Your task to perform on an android device: move an email to a new category in the gmail app Image 0: 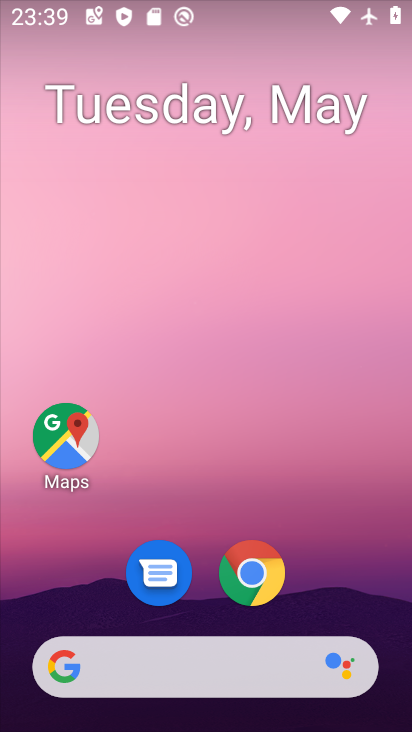
Step 0: drag from (335, 215) to (335, 78)
Your task to perform on an android device: move an email to a new category in the gmail app Image 1: 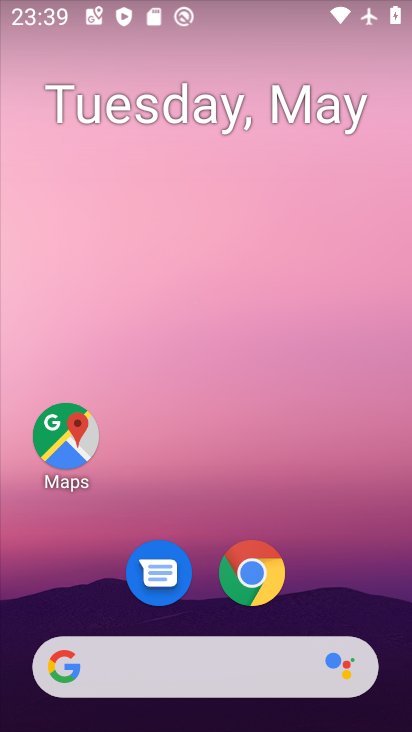
Step 1: drag from (335, 545) to (340, 267)
Your task to perform on an android device: move an email to a new category in the gmail app Image 2: 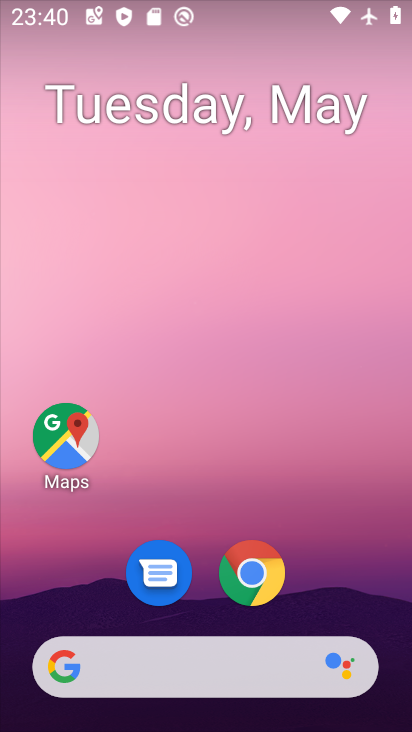
Step 2: drag from (325, 585) to (344, 174)
Your task to perform on an android device: move an email to a new category in the gmail app Image 3: 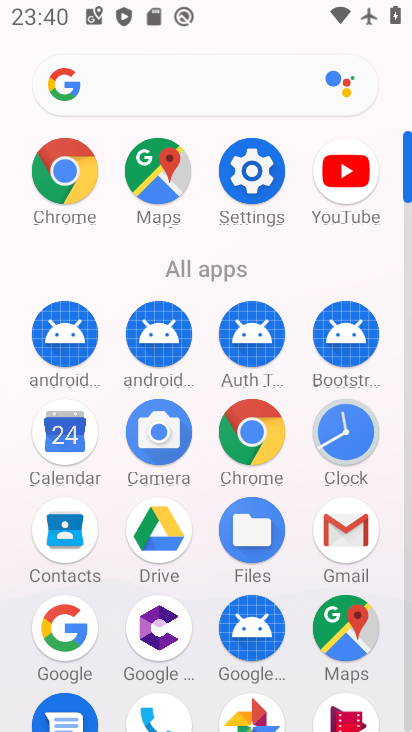
Step 3: click (350, 526)
Your task to perform on an android device: move an email to a new category in the gmail app Image 4: 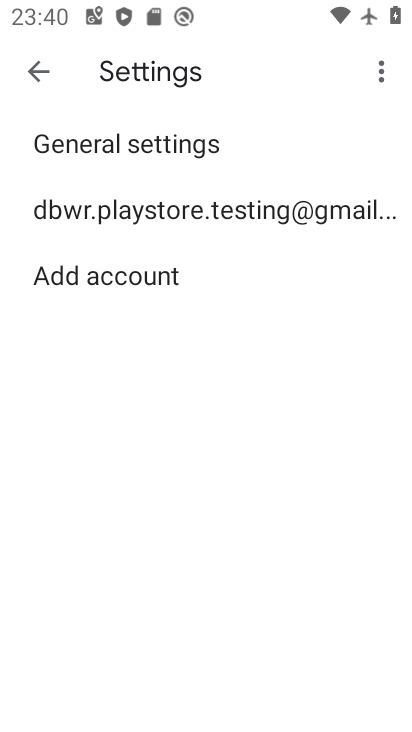
Step 4: click (161, 210)
Your task to perform on an android device: move an email to a new category in the gmail app Image 5: 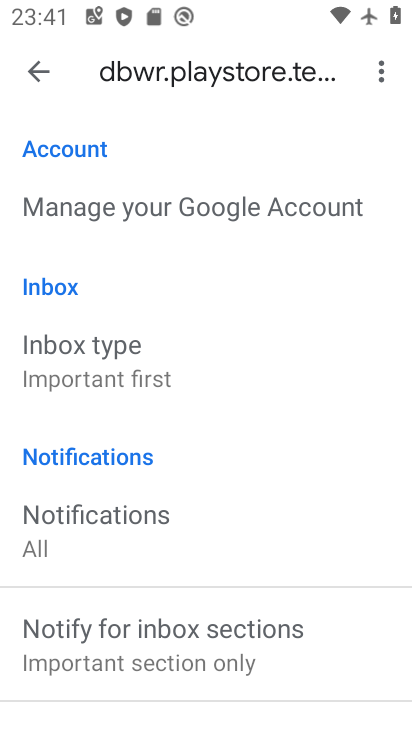
Step 5: click (28, 53)
Your task to perform on an android device: move an email to a new category in the gmail app Image 6: 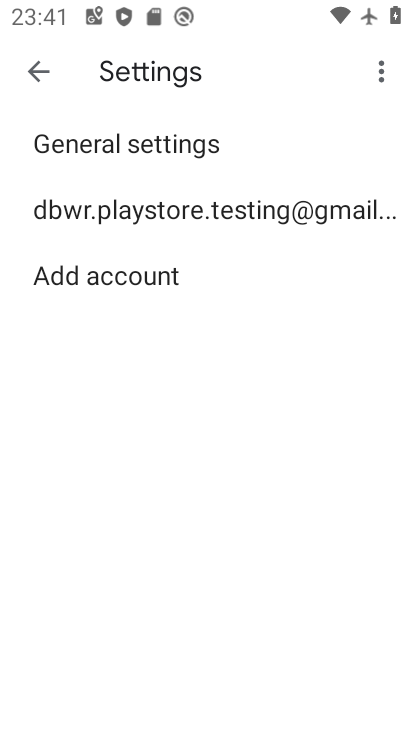
Step 6: click (40, 61)
Your task to perform on an android device: move an email to a new category in the gmail app Image 7: 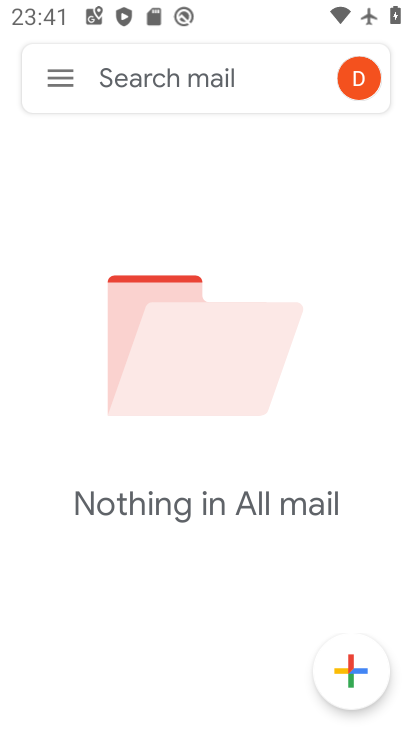
Step 7: click (66, 71)
Your task to perform on an android device: move an email to a new category in the gmail app Image 8: 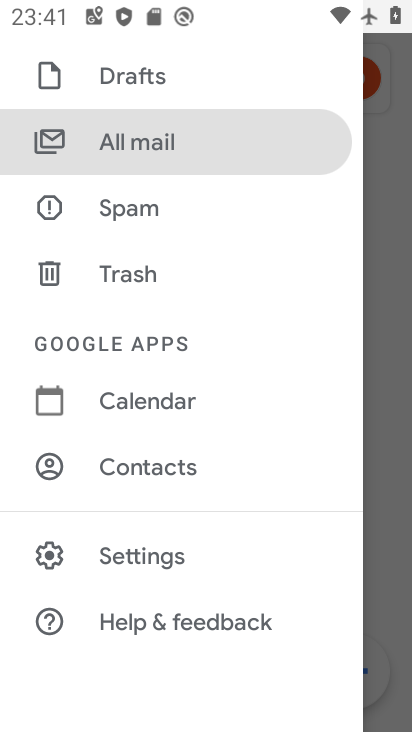
Step 8: click (170, 549)
Your task to perform on an android device: move an email to a new category in the gmail app Image 9: 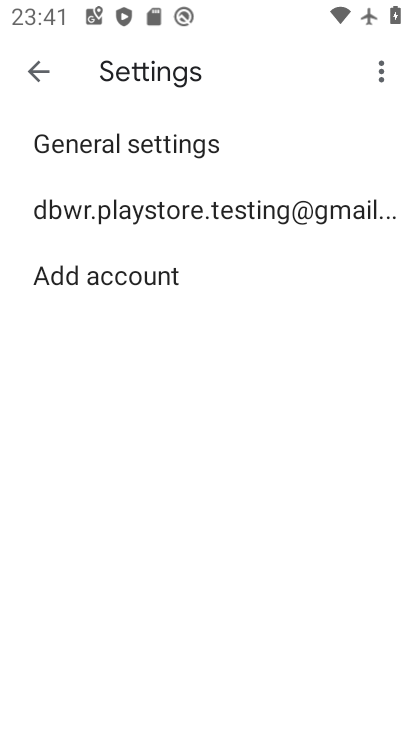
Step 9: click (159, 197)
Your task to perform on an android device: move an email to a new category in the gmail app Image 10: 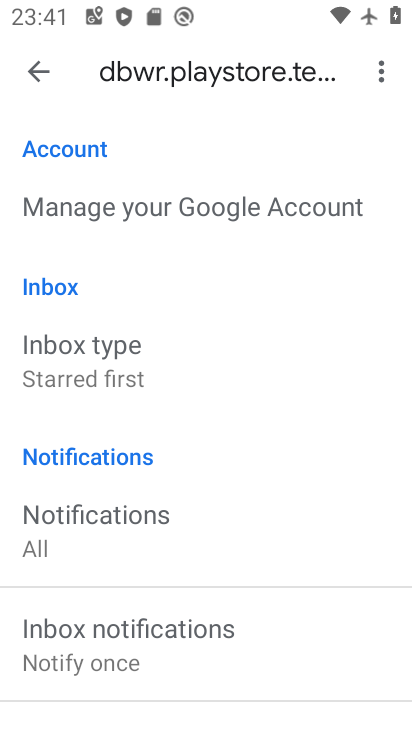
Step 10: click (30, 80)
Your task to perform on an android device: move an email to a new category in the gmail app Image 11: 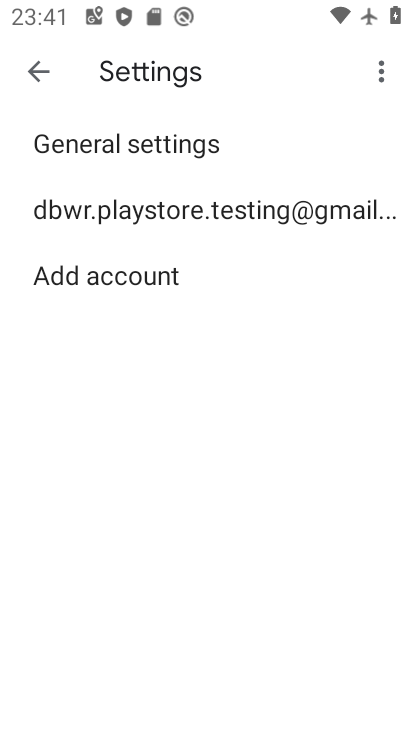
Step 11: click (39, 70)
Your task to perform on an android device: move an email to a new category in the gmail app Image 12: 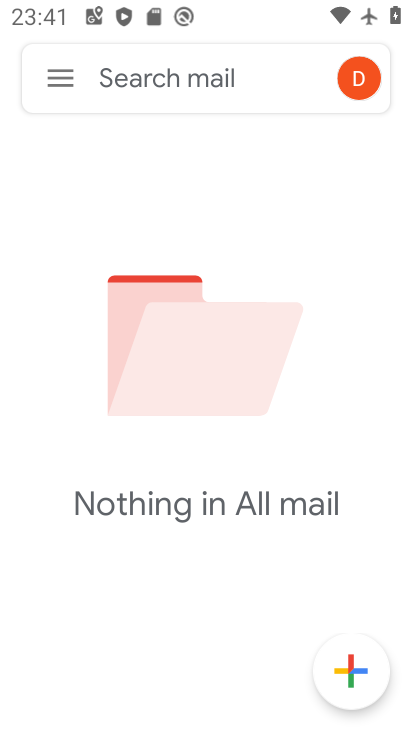
Step 12: click (46, 73)
Your task to perform on an android device: move an email to a new category in the gmail app Image 13: 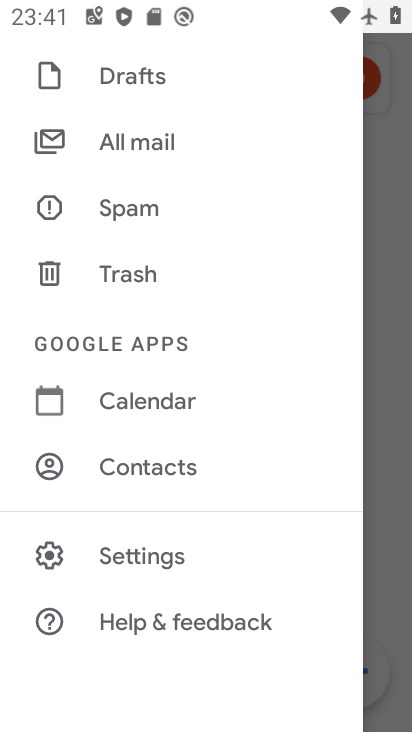
Step 13: drag from (188, 120) to (187, 502)
Your task to perform on an android device: move an email to a new category in the gmail app Image 14: 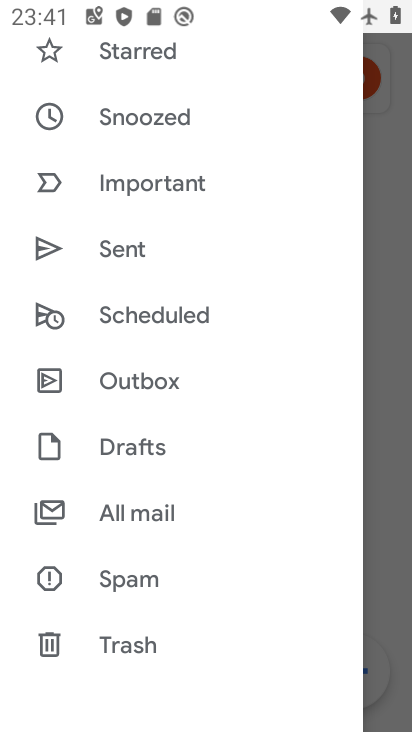
Step 14: drag from (187, 182) to (184, 533)
Your task to perform on an android device: move an email to a new category in the gmail app Image 15: 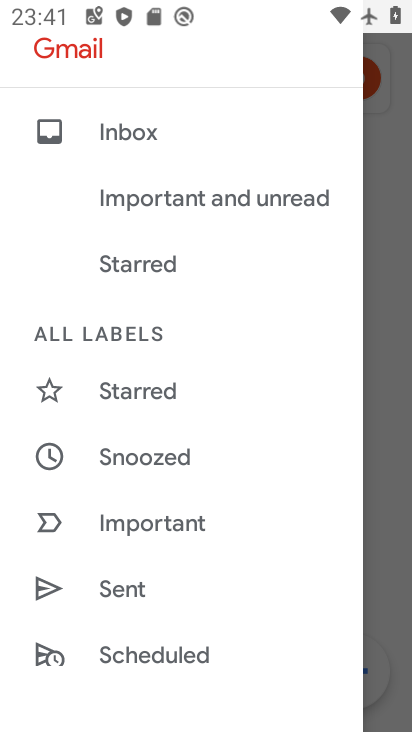
Step 15: drag from (201, 556) to (193, 277)
Your task to perform on an android device: move an email to a new category in the gmail app Image 16: 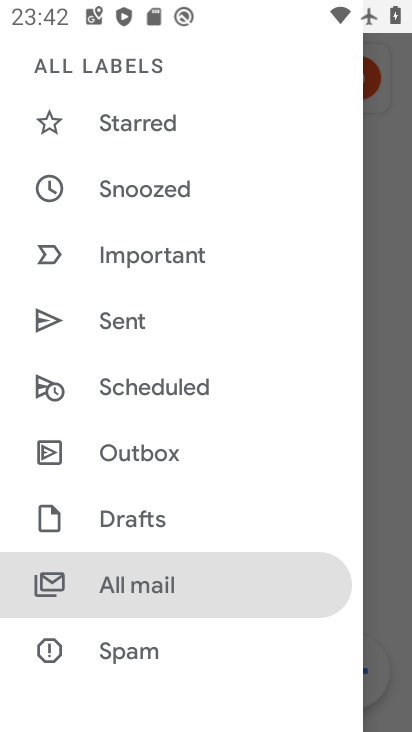
Step 16: click (114, 589)
Your task to perform on an android device: move an email to a new category in the gmail app Image 17: 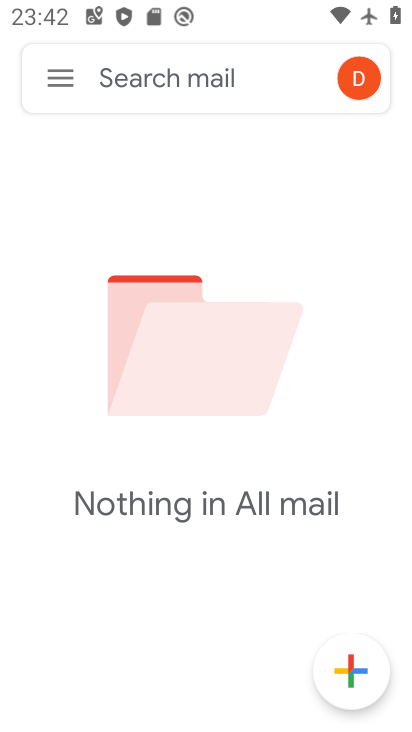
Step 17: task complete